Your task to perform on an android device: Open ESPN.com Image 0: 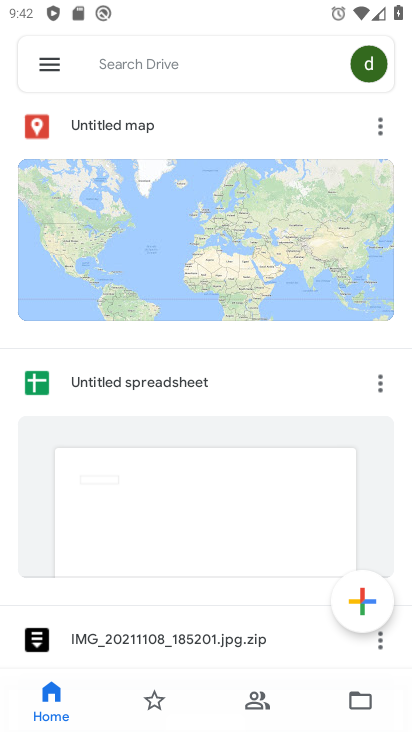
Step 0: press home button
Your task to perform on an android device: Open ESPN.com Image 1: 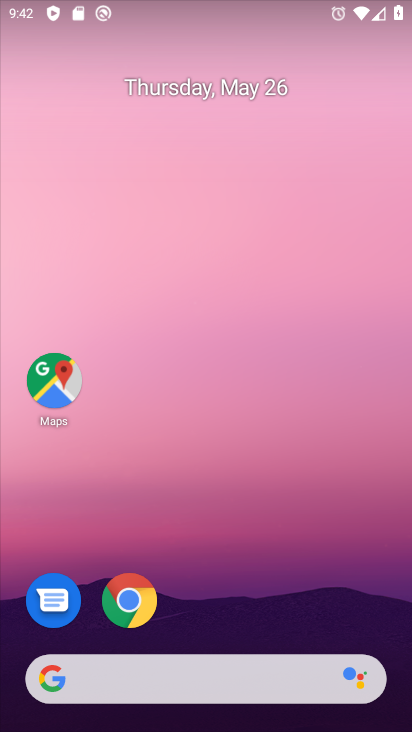
Step 1: click (123, 593)
Your task to perform on an android device: Open ESPN.com Image 2: 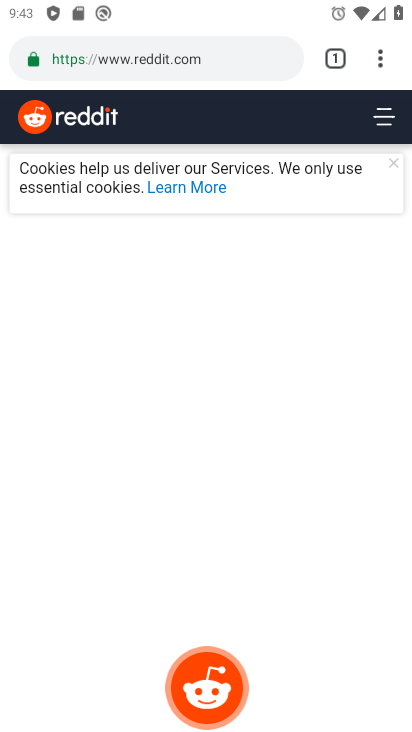
Step 2: click (178, 60)
Your task to perform on an android device: Open ESPN.com Image 3: 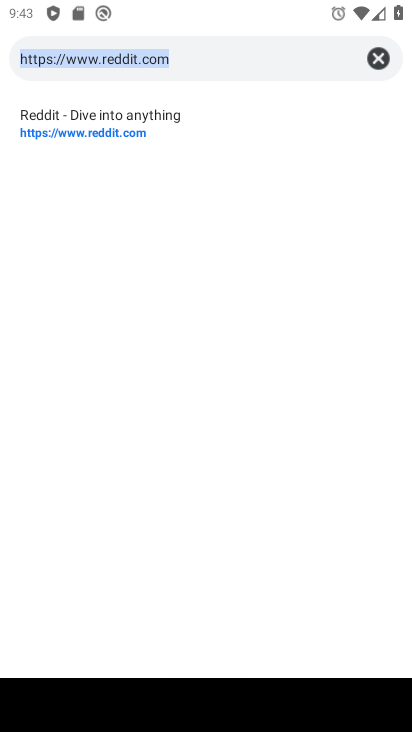
Step 3: type "espn.com"
Your task to perform on an android device: Open ESPN.com Image 4: 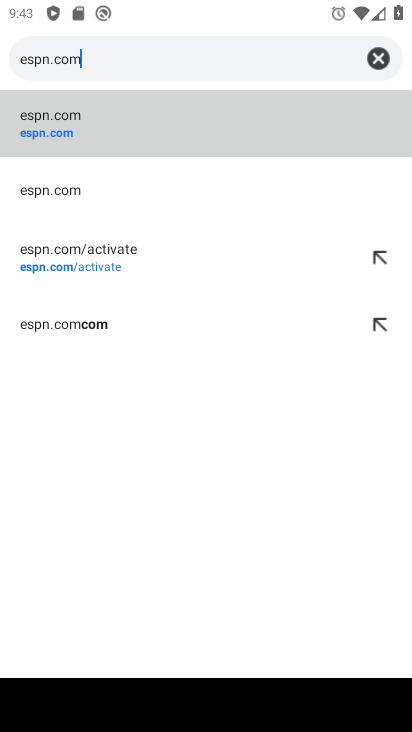
Step 4: click (28, 138)
Your task to perform on an android device: Open ESPN.com Image 5: 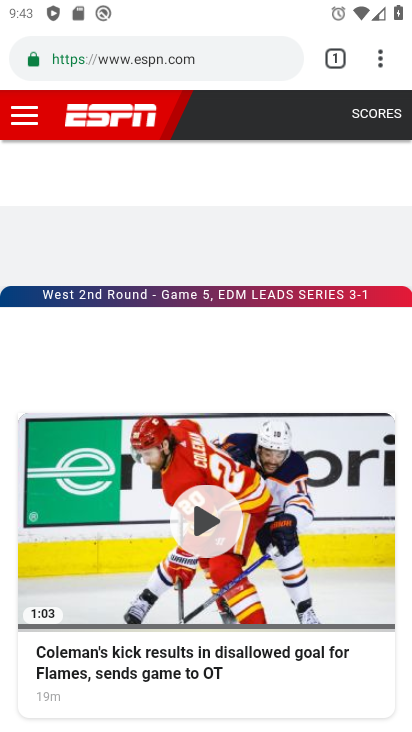
Step 5: task complete